Your task to perform on an android device: snooze an email in the gmail app Image 0: 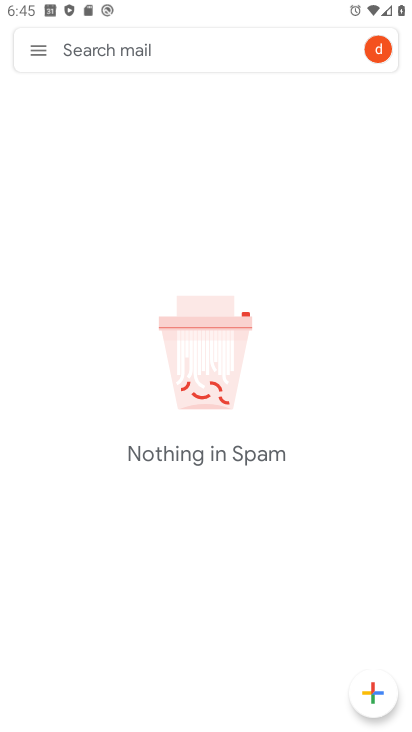
Step 0: press home button
Your task to perform on an android device: snooze an email in the gmail app Image 1: 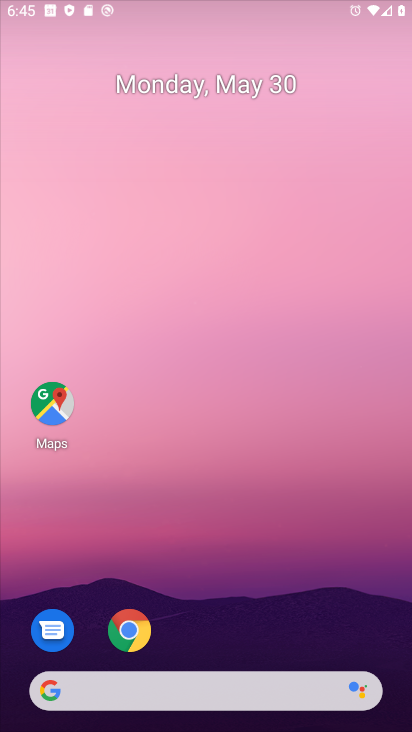
Step 1: drag from (352, 610) to (328, 19)
Your task to perform on an android device: snooze an email in the gmail app Image 2: 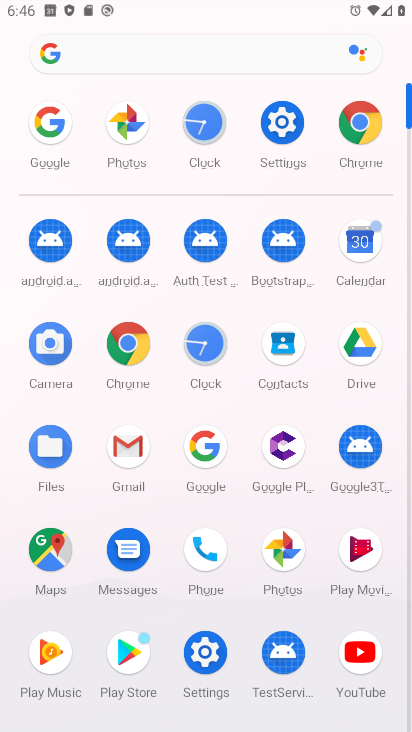
Step 2: click (123, 451)
Your task to perform on an android device: snooze an email in the gmail app Image 3: 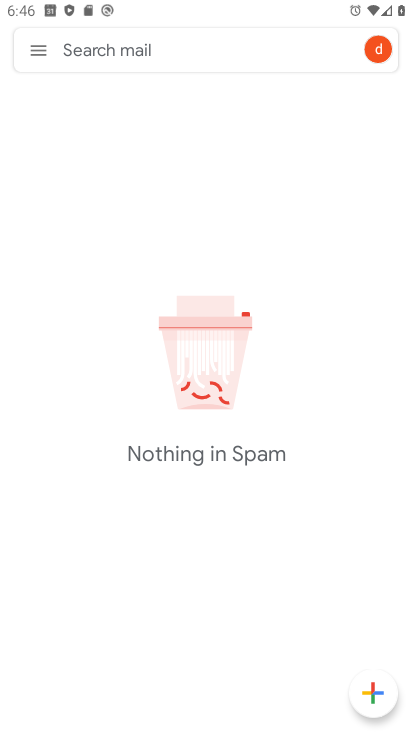
Step 3: click (34, 46)
Your task to perform on an android device: snooze an email in the gmail app Image 4: 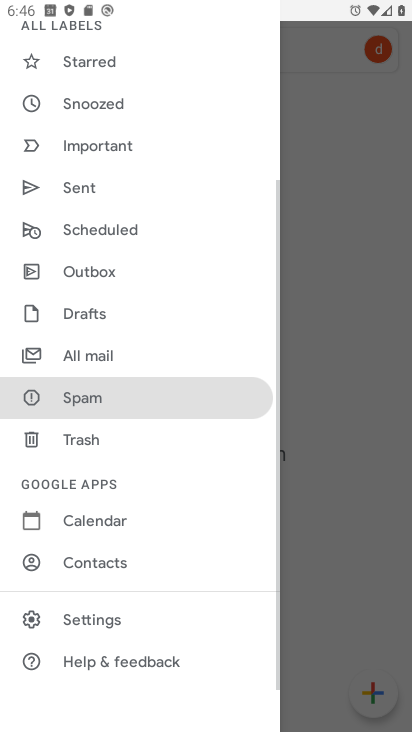
Step 4: click (107, 111)
Your task to perform on an android device: snooze an email in the gmail app Image 5: 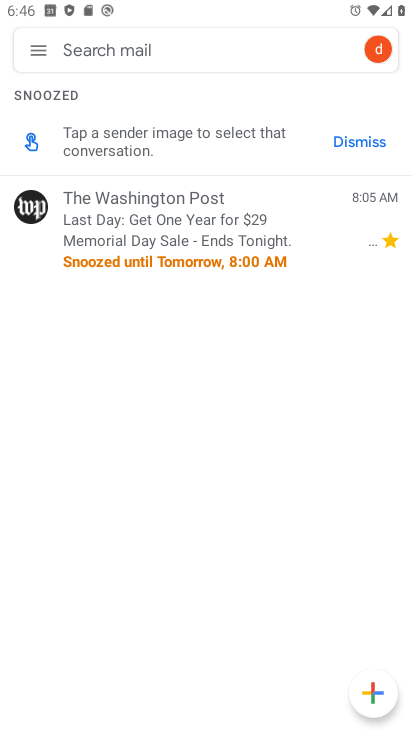
Step 5: click (32, 48)
Your task to perform on an android device: snooze an email in the gmail app Image 6: 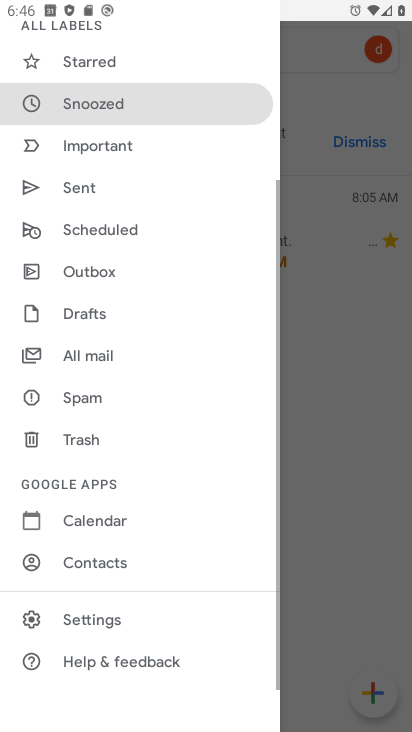
Step 6: drag from (99, 80) to (128, 586)
Your task to perform on an android device: snooze an email in the gmail app Image 7: 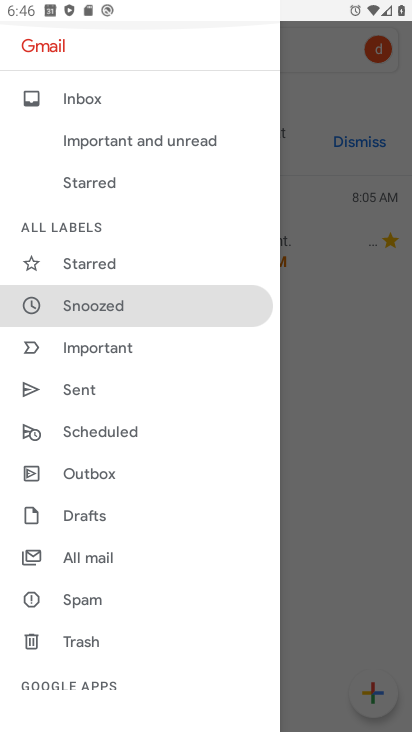
Step 7: click (122, 96)
Your task to perform on an android device: snooze an email in the gmail app Image 8: 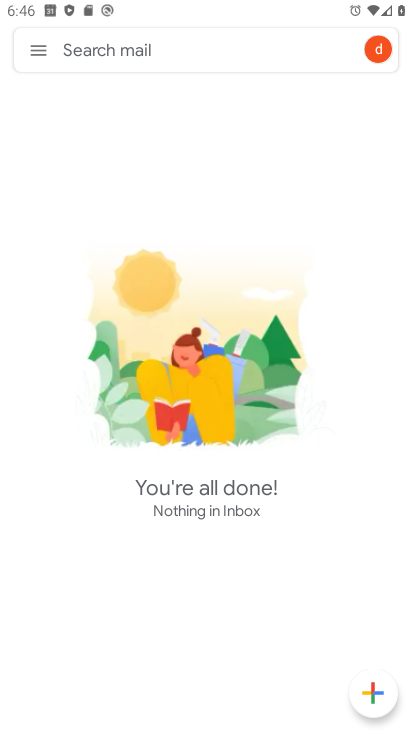
Step 8: task complete